Your task to perform on an android device: see creations saved in the google photos Image 0: 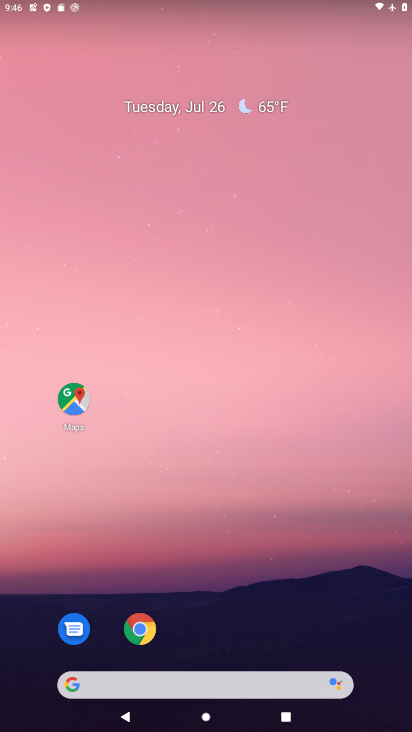
Step 0: drag from (340, 572) to (280, 102)
Your task to perform on an android device: see creations saved in the google photos Image 1: 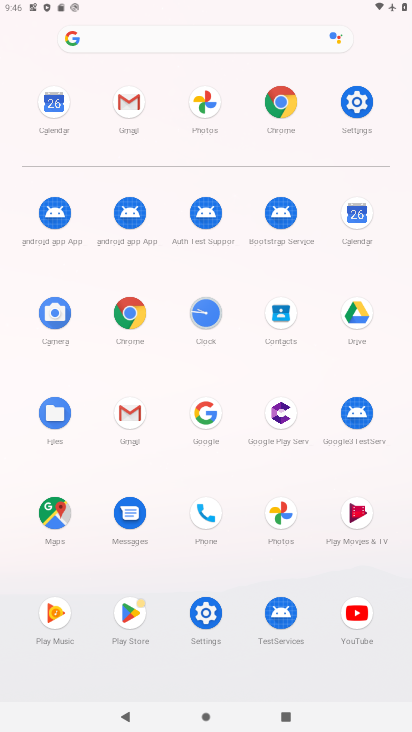
Step 1: click (287, 514)
Your task to perform on an android device: see creations saved in the google photos Image 2: 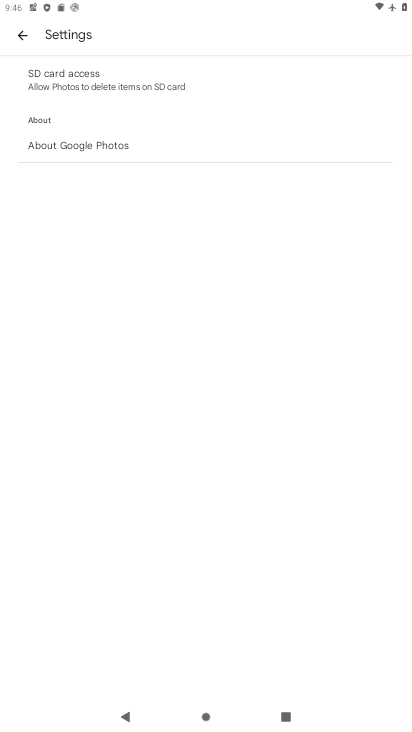
Step 2: click (30, 28)
Your task to perform on an android device: see creations saved in the google photos Image 3: 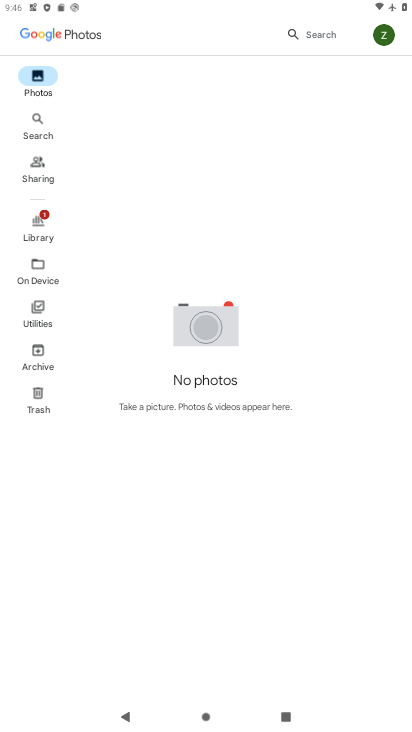
Step 3: click (38, 168)
Your task to perform on an android device: see creations saved in the google photos Image 4: 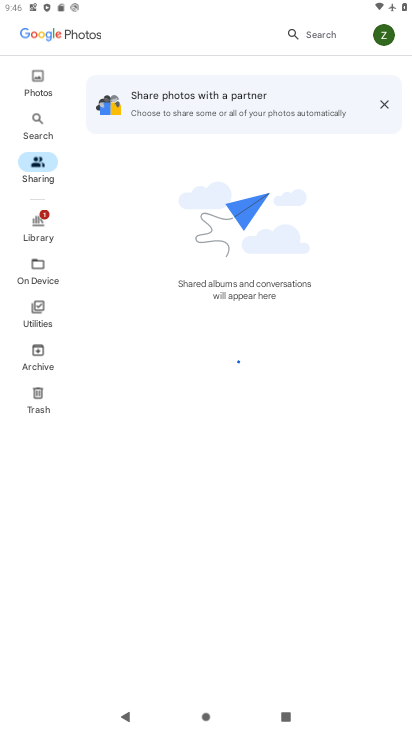
Step 4: click (39, 224)
Your task to perform on an android device: see creations saved in the google photos Image 5: 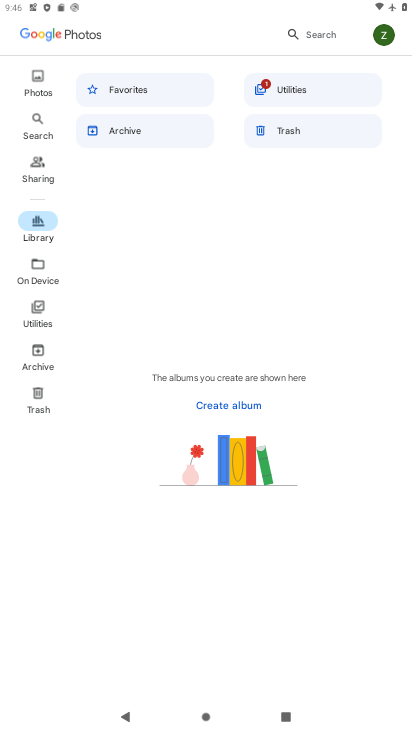
Step 5: task complete